Your task to perform on an android device: visit the assistant section in the google photos Image 0: 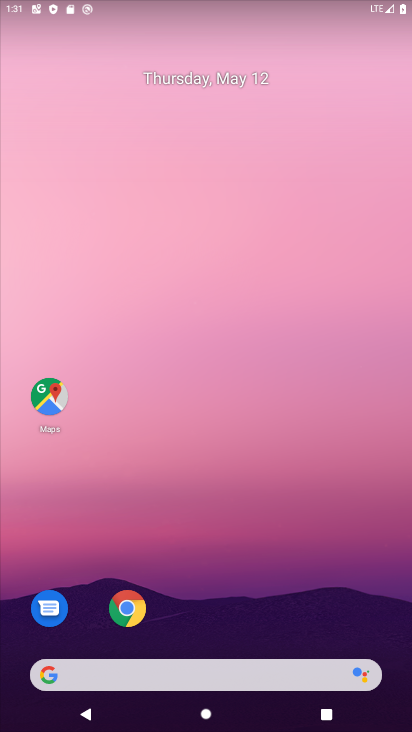
Step 0: drag from (338, 595) to (294, 7)
Your task to perform on an android device: visit the assistant section in the google photos Image 1: 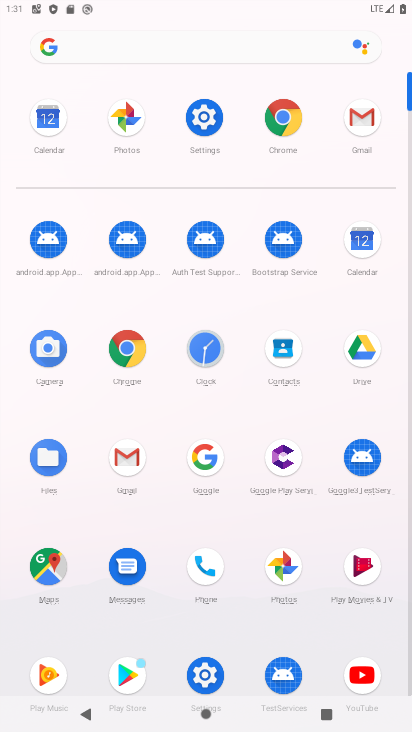
Step 1: click (121, 145)
Your task to perform on an android device: visit the assistant section in the google photos Image 2: 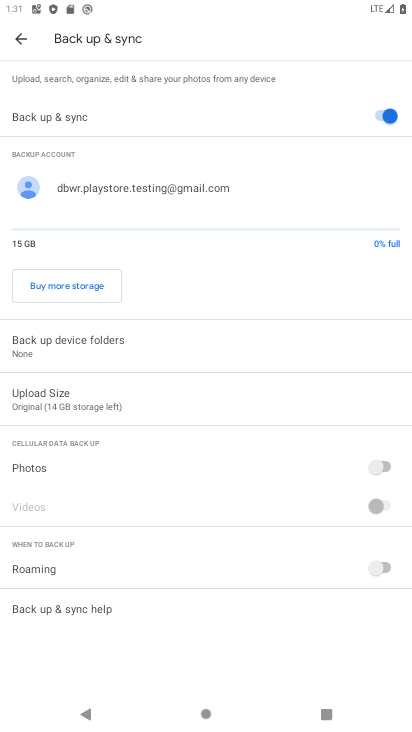
Step 2: click (26, 38)
Your task to perform on an android device: visit the assistant section in the google photos Image 3: 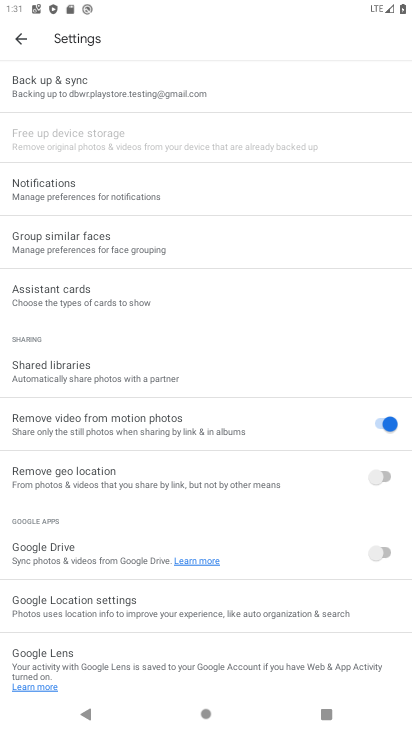
Step 3: click (30, 38)
Your task to perform on an android device: visit the assistant section in the google photos Image 4: 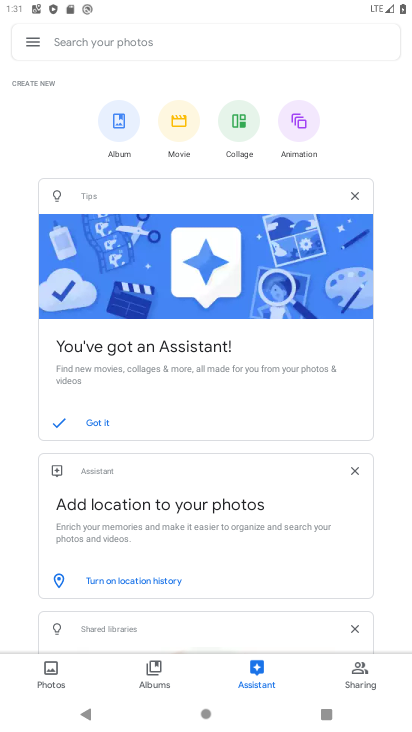
Step 4: click (264, 682)
Your task to perform on an android device: visit the assistant section in the google photos Image 5: 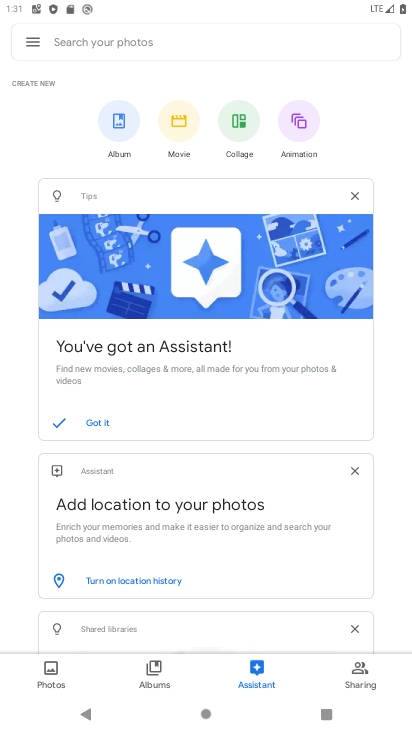
Step 5: task complete